Your task to perform on an android device: manage bookmarks in the chrome app Image 0: 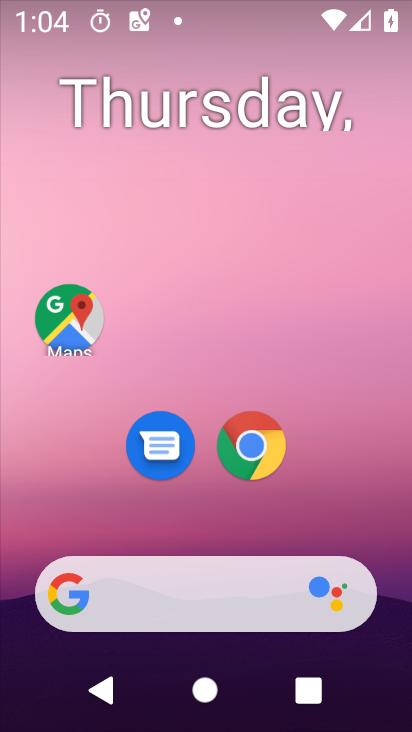
Step 0: click (257, 452)
Your task to perform on an android device: manage bookmarks in the chrome app Image 1: 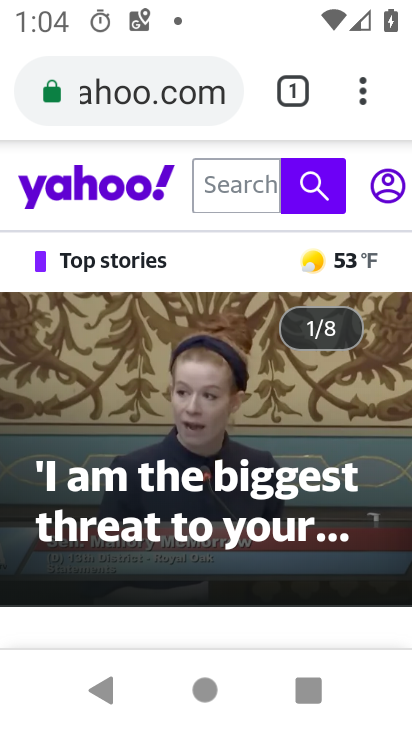
Step 1: task complete